Your task to perform on an android device: turn off picture-in-picture Image 0: 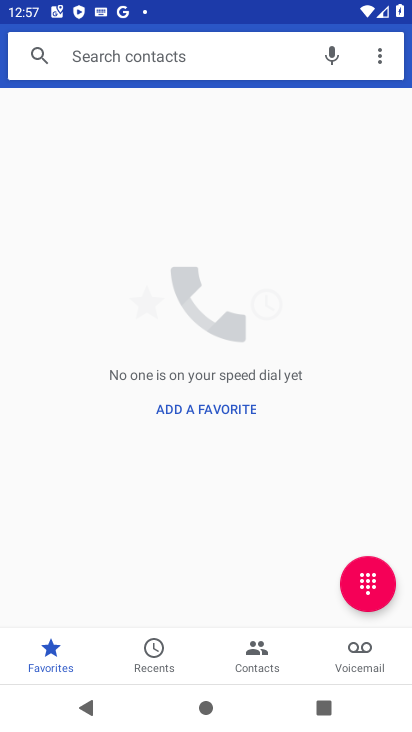
Step 0: press home button
Your task to perform on an android device: turn off picture-in-picture Image 1: 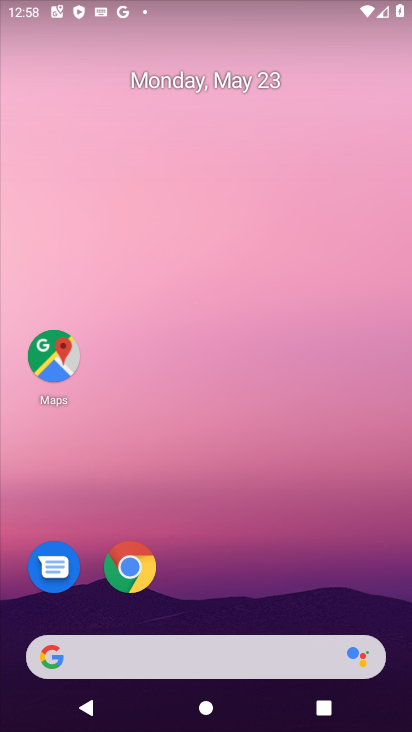
Step 1: click (145, 572)
Your task to perform on an android device: turn off picture-in-picture Image 2: 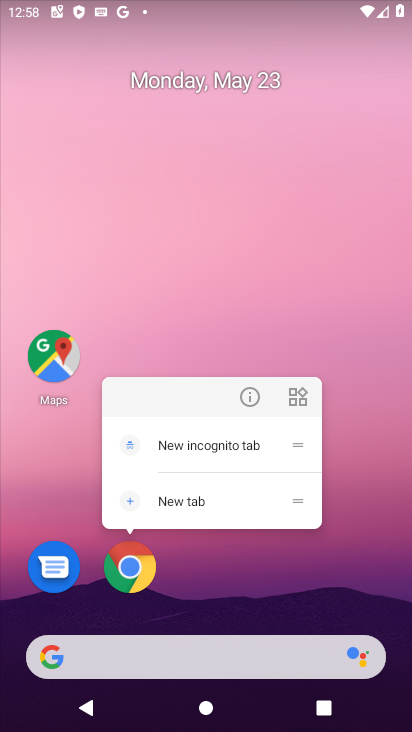
Step 2: click (247, 401)
Your task to perform on an android device: turn off picture-in-picture Image 3: 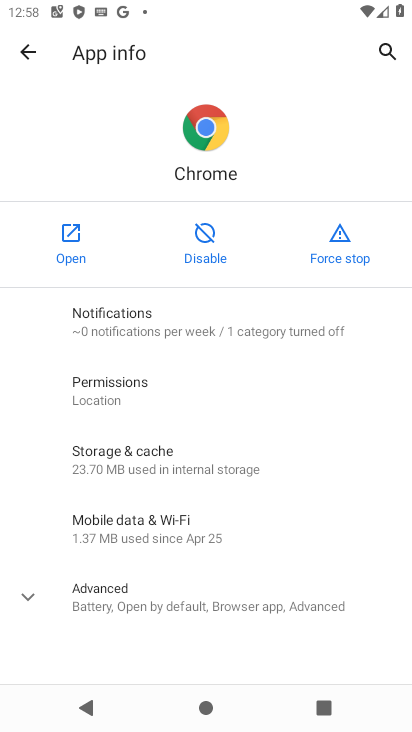
Step 3: click (212, 609)
Your task to perform on an android device: turn off picture-in-picture Image 4: 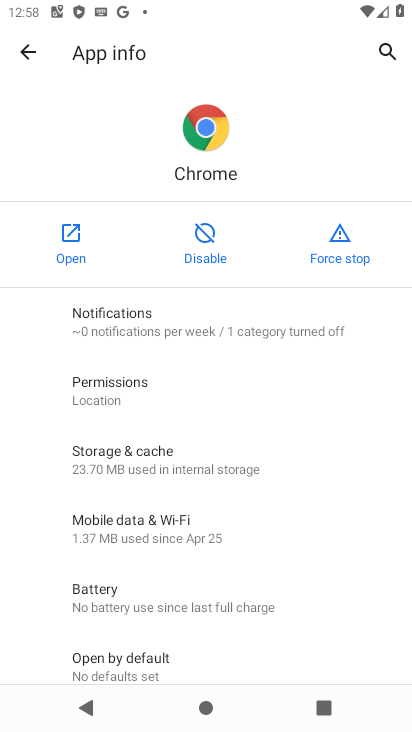
Step 4: drag from (240, 628) to (226, 56)
Your task to perform on an android device: turn off picture-in-picture Image 5: 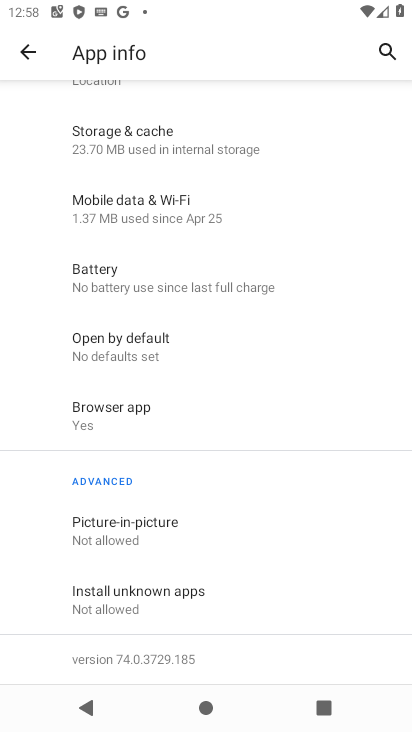
Step 5: click (205, 524)
Your task to perform on an android device: turn off picture-in-picture Image 6: 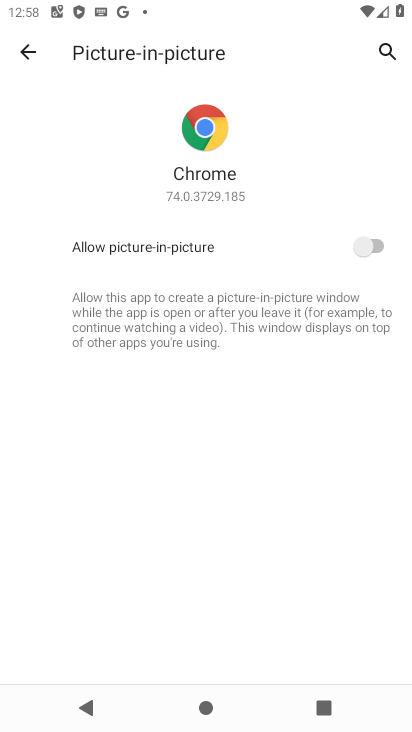
Step 6: task complete